Your task to perform on an android device: Go to settings Image 0: 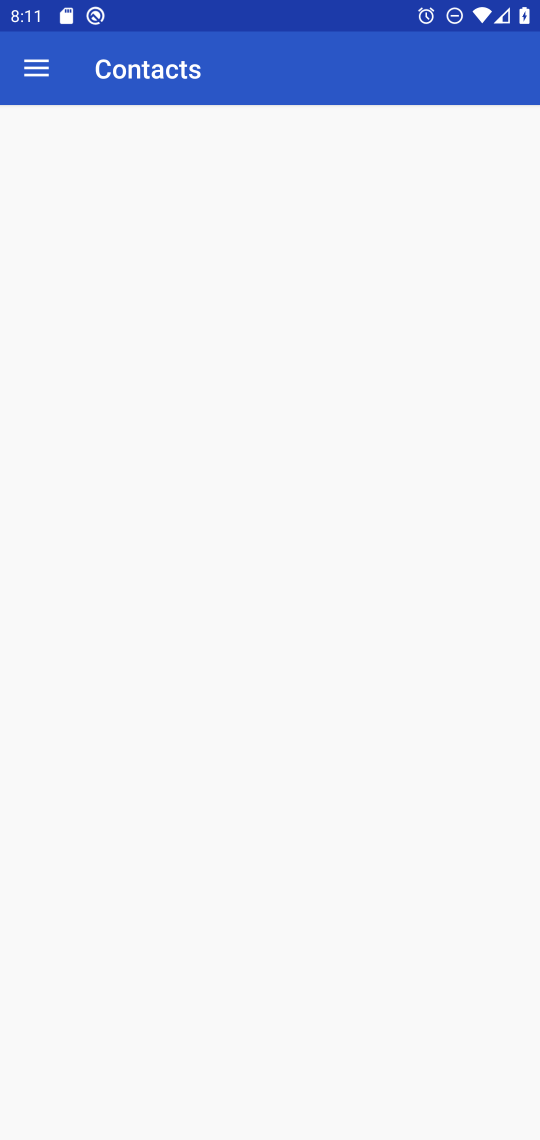
Step 0: click (312, 132)
Your task to perform on an android device: Go to settings Image 1: 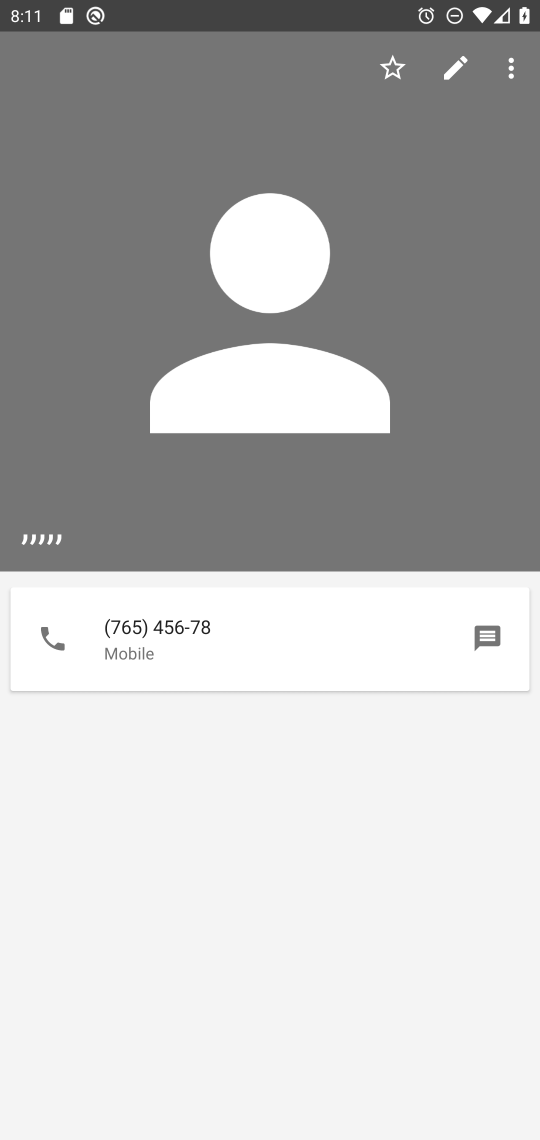
Step 1: press home button
Your task to perform on an android device: Go to settings Image 2: 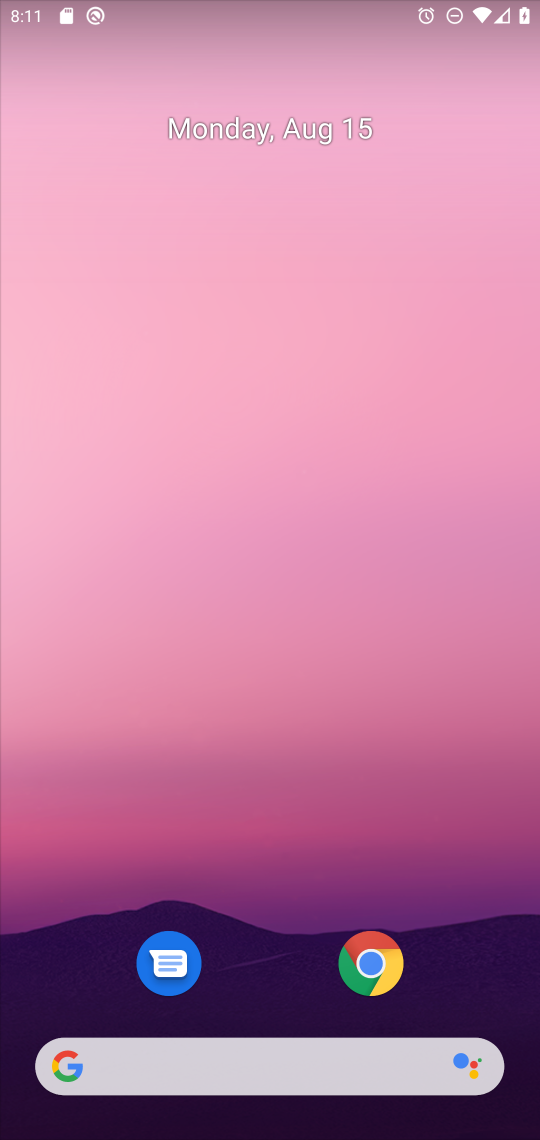
Step 2: drag from (261, 996) to (288, 220)
Your task to perform on an android device: Go to settings Image 3: 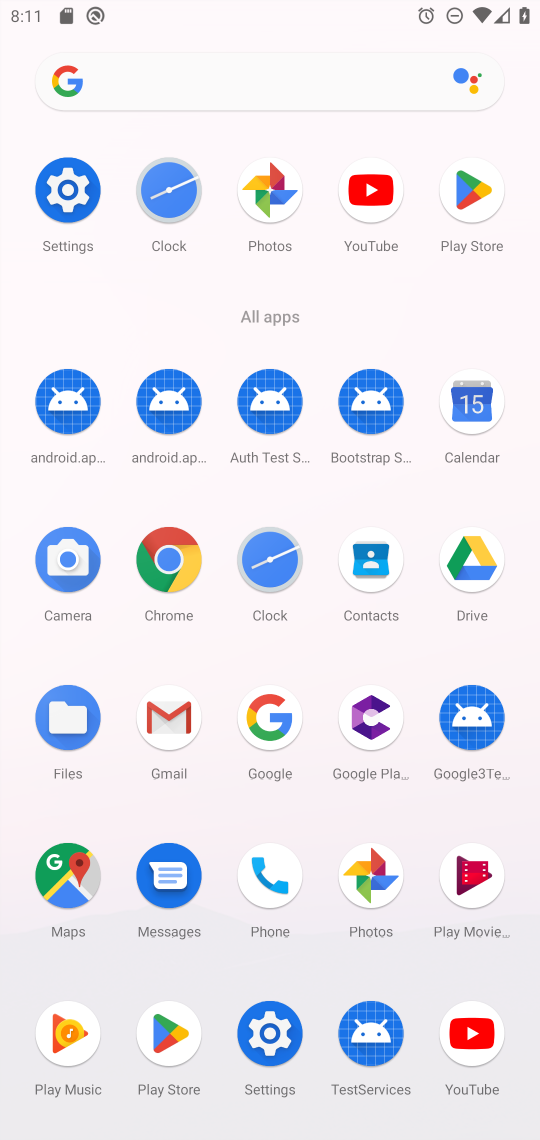
Step 3: click (74, 197)
Your task to perform on an android device: Go to settings Image 4: 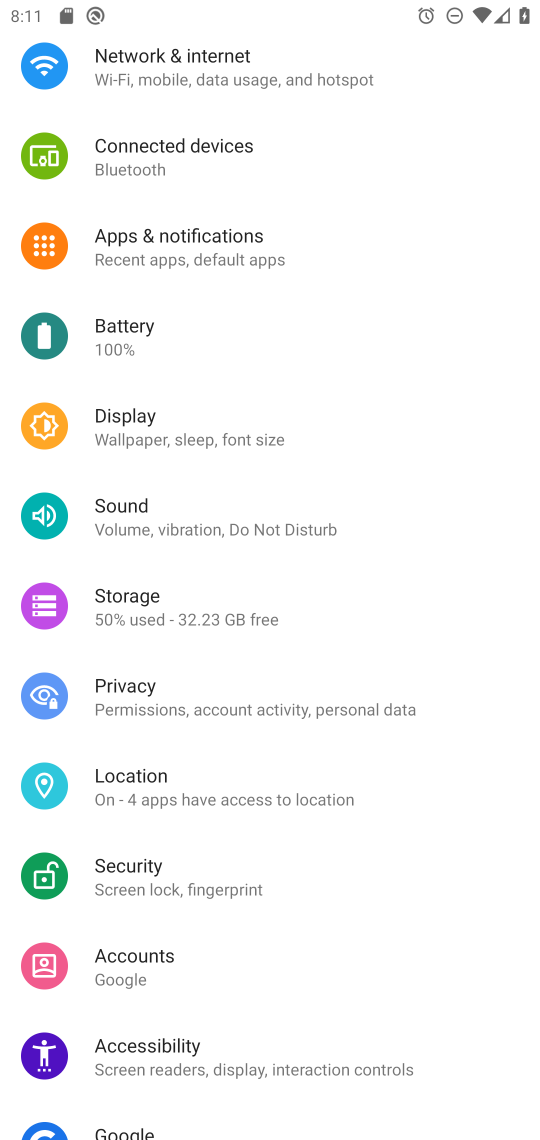
Step 4: task complete